Your task to perform on an android device: Open Youtube and go to the subscriptions tab Image 0: 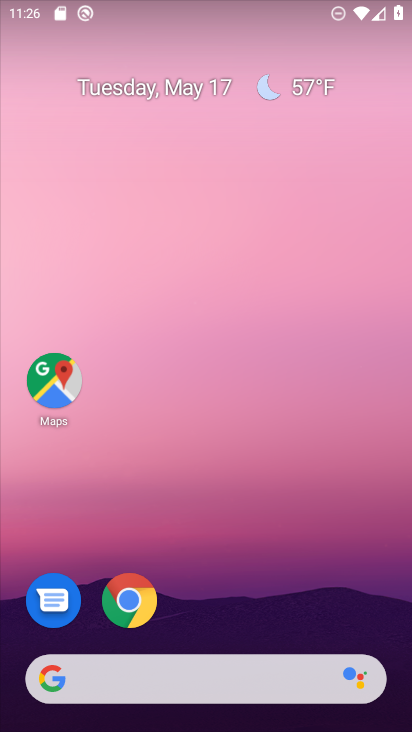
Step 0: drag from (365, 696) to (145, 51)
Your task to perform on an android device: Open Youtube and go to the subscriptions tab Image 1: 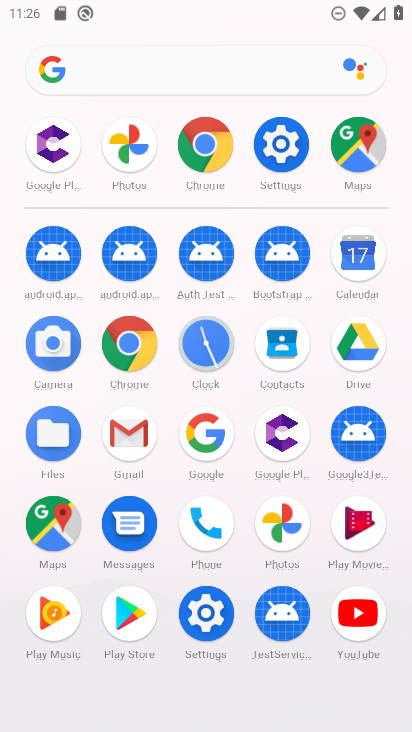
Step 1: click (351, 602)
Your task to perform on an android device: Open Youtube and go to the subscriptions tab Image 2: 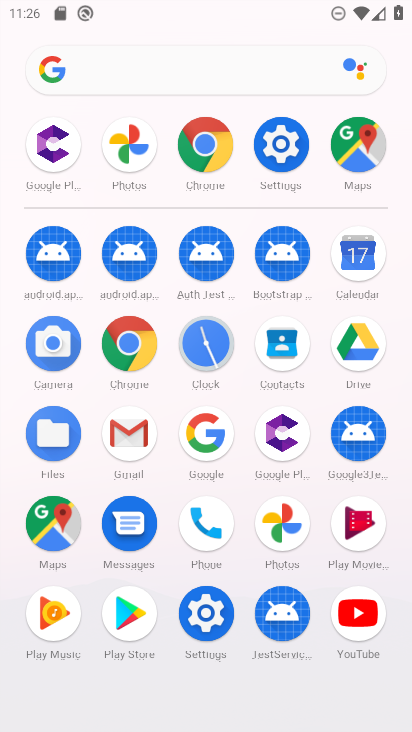
Step 2: click (353, 603)
Your task to perform on an android device: Open Youtube and go to the subscriptions tab Image 3: 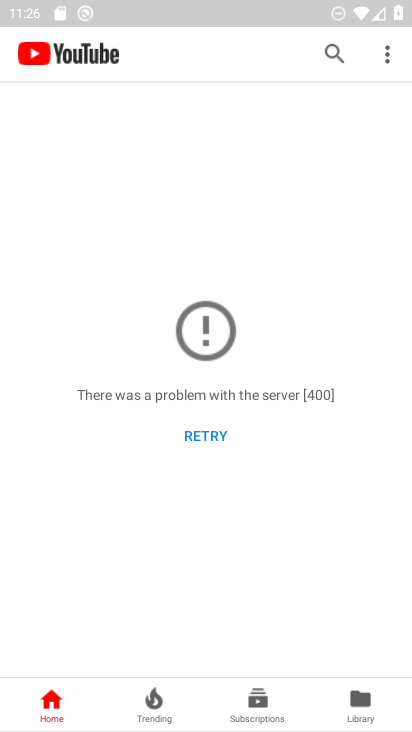
Step 3: task complete